Your task to perform on an android device: Open location settings Image 0: 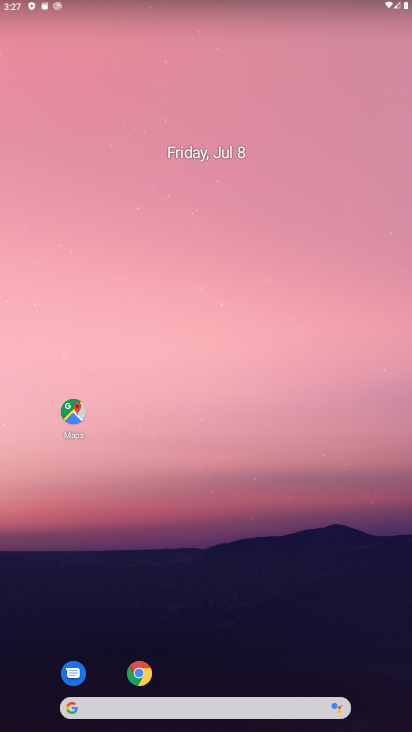
Step 0: drag from (220, 679) to (230, 57)
Your task to perform on an android device: Open location settings Image 1: 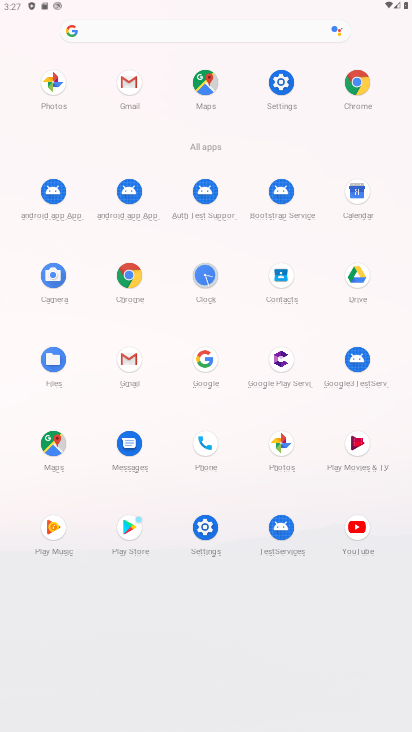
Step 1: click (280, 80)
Your task to perform on an android device: Open location settings Image 2: 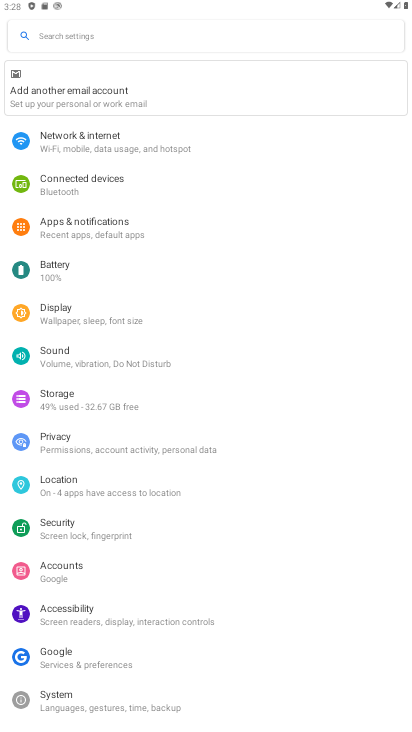
Step 2: click (77, 480)
Your task to perform on an android device: Open location settings Image 3: 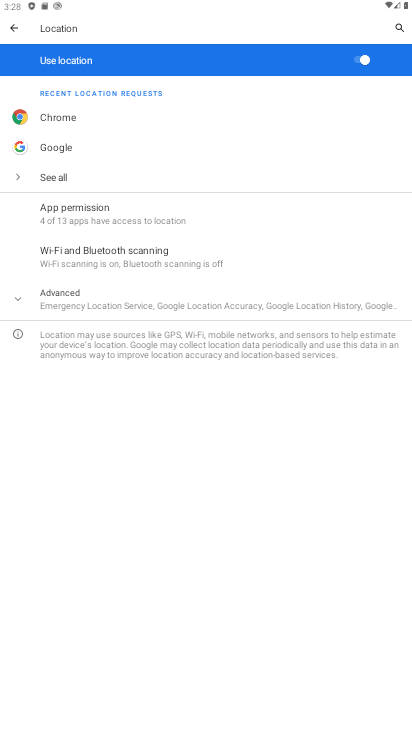
Step 3: task complete